Your task to perform on an android device: Open Chrome and go to the settings page Image 0: 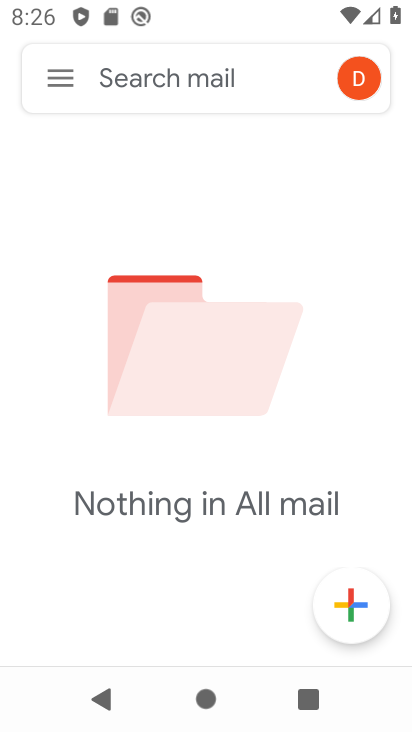
Step 0: press home button
Your task to perform on an android device: Open Chrome and go to the settings page Image 1: 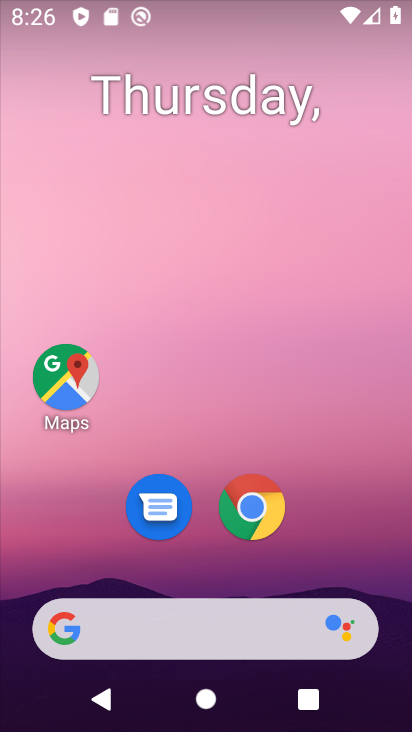
Step 1: click (246, 528)
Your task to perform on an android device: Open Chrome and go to the settings page Image 2: 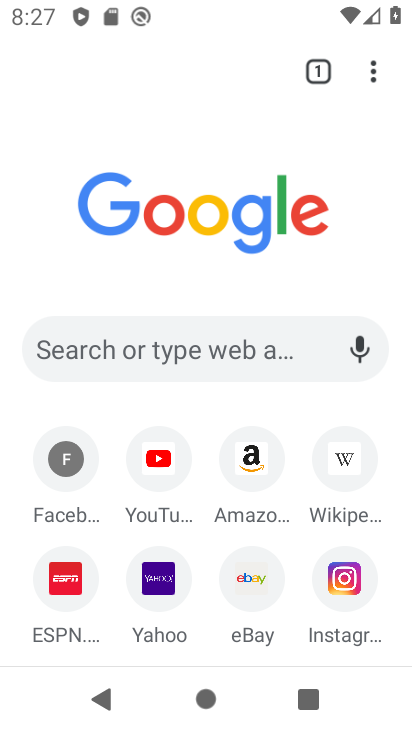
Step 2: click (375, 76)
Your task to perform on an android device: Open Chrome and go to the settings page Image 3: 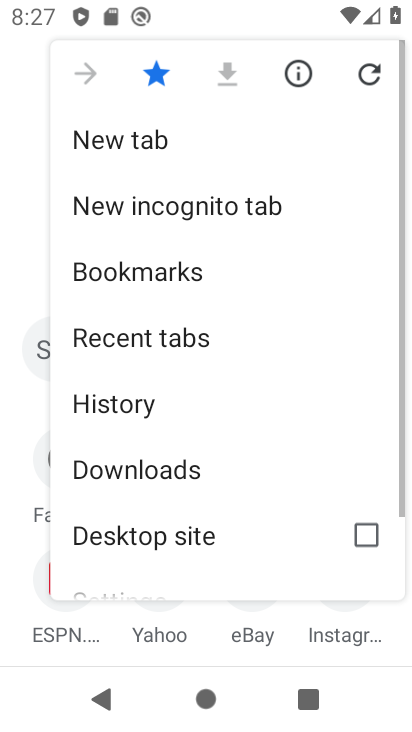
Step 3: drag from (172, 529) to (212, 147)
Your task to perform on an android device: Open Chrome and go to the settings page Image 4: 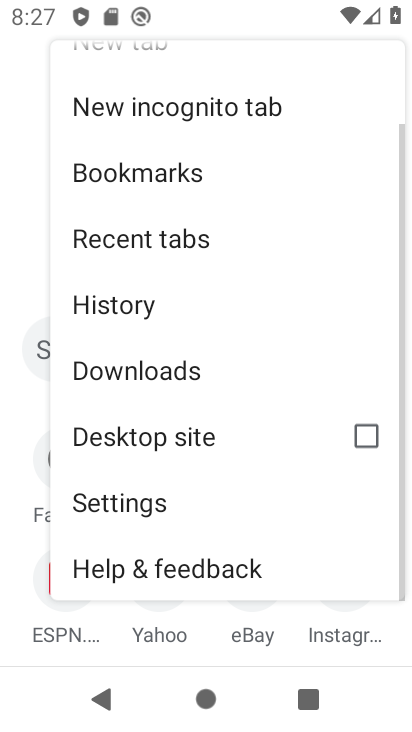
Step 4: click (147, 511)
Your task to perform on an android device: Open Chrome and go to the settings page Image 5: 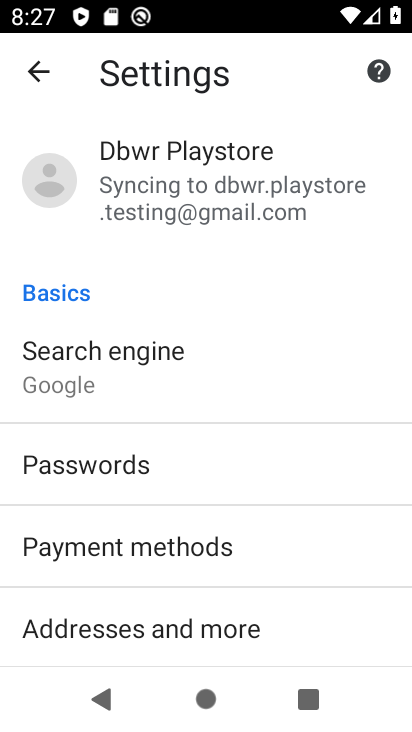
Step 5: task complete